Your task to perform on an android device: Open Google Chrome Image 0: 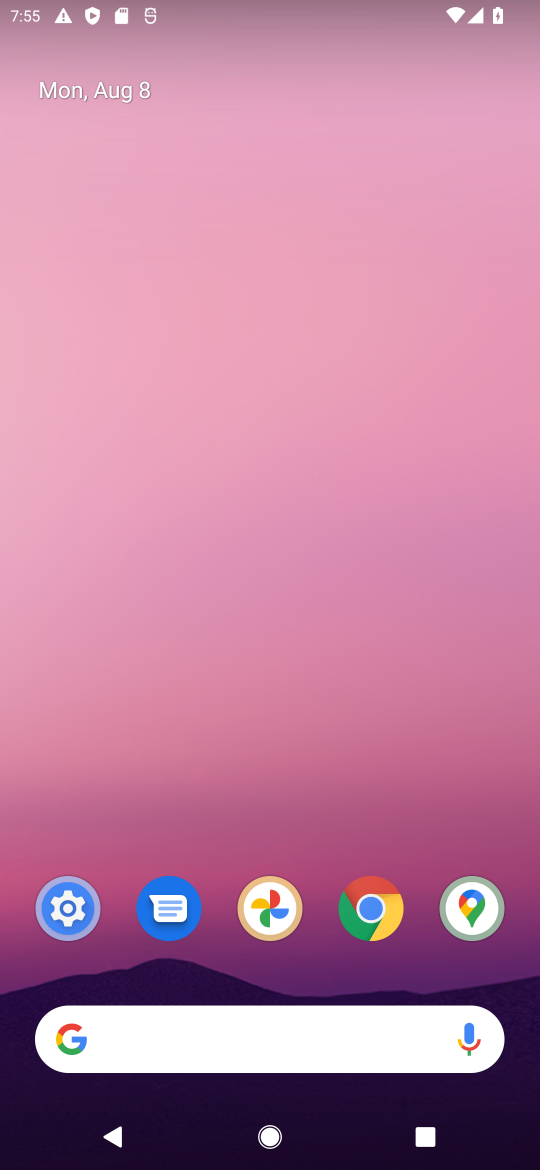
Step 0: click (383, 919)
Your task to perform on an android device: Open Google Chrome Image 1: 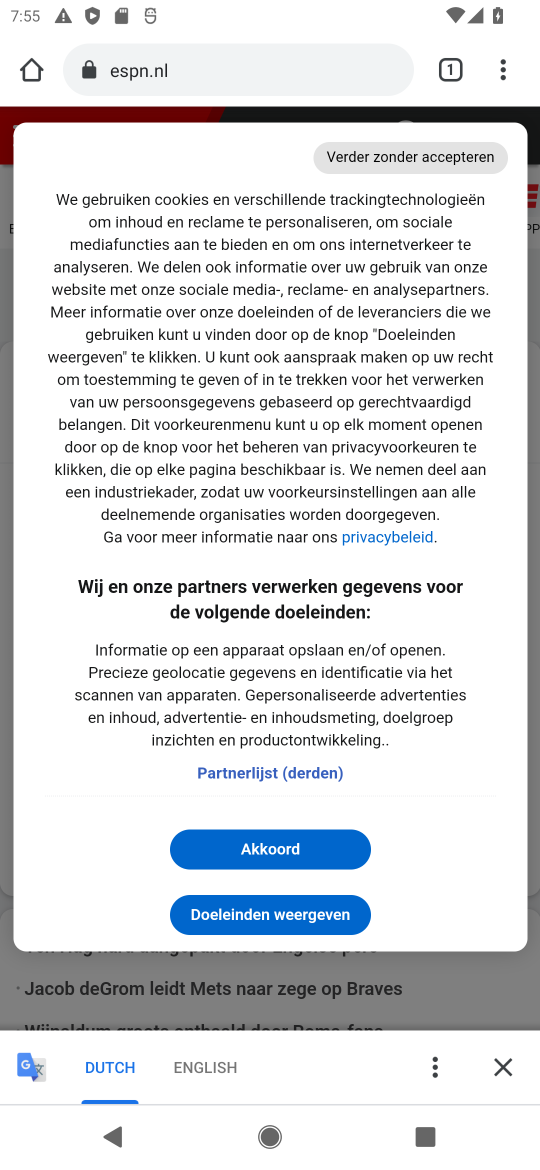
Step 1: task complete